Your task to perform on an android device: Go to accessibility settings Image 0: 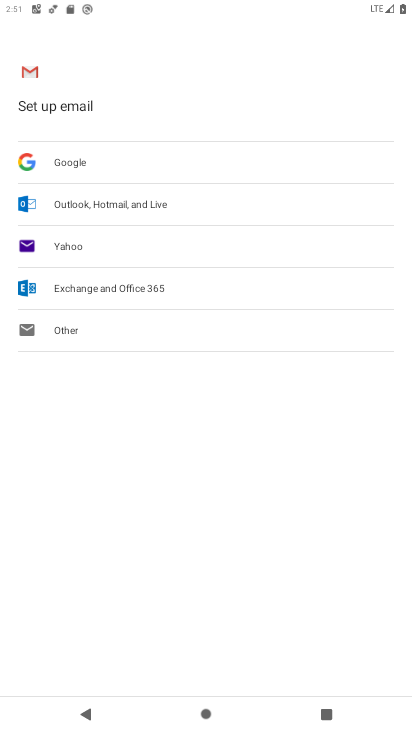
Step 0: press home button
Your task to perform on an android device: Go to accessibility settings Image 1: 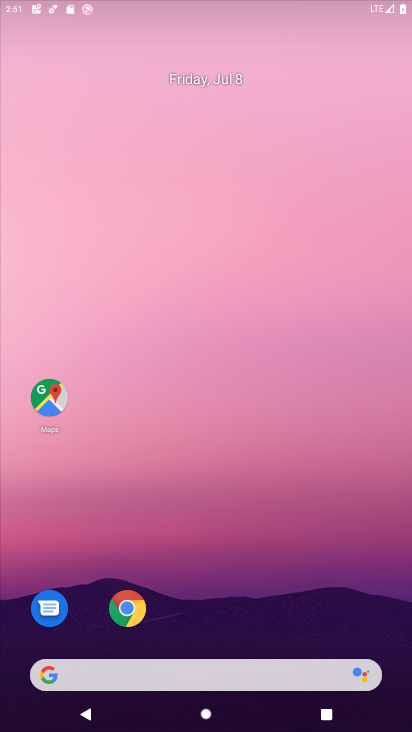
Step 1: drag from (288, 620) to (282, 180)
Your task to perform on an android device: Go to accessibility settings Image 2: 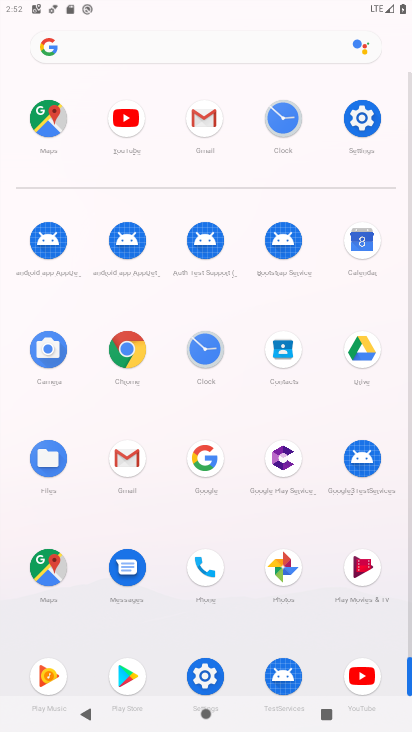
Step 2: click (206, 666)
Your task to perform on an android device: Go to accessibility settings Image 3: 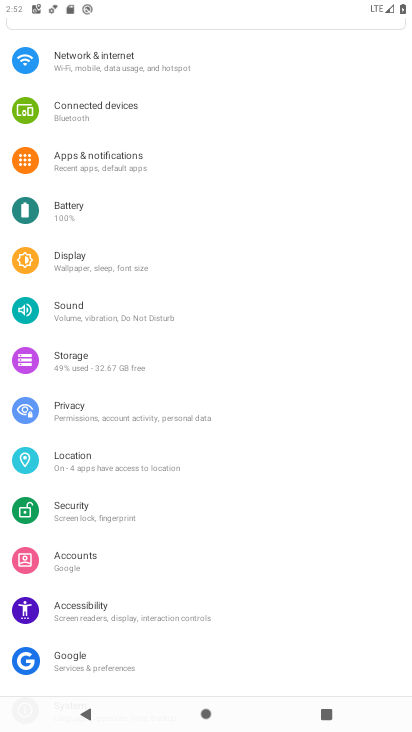
Step 3: click (152, 606)
Your task to perform on an android device: Go to accessibility settings Image 4: 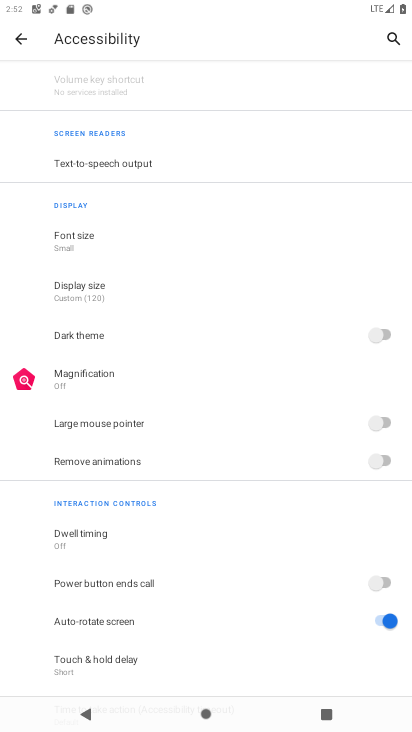
Step 4: task complete